Your task to perform on an android device: Set the phone to "Do not disturb". Image 0: 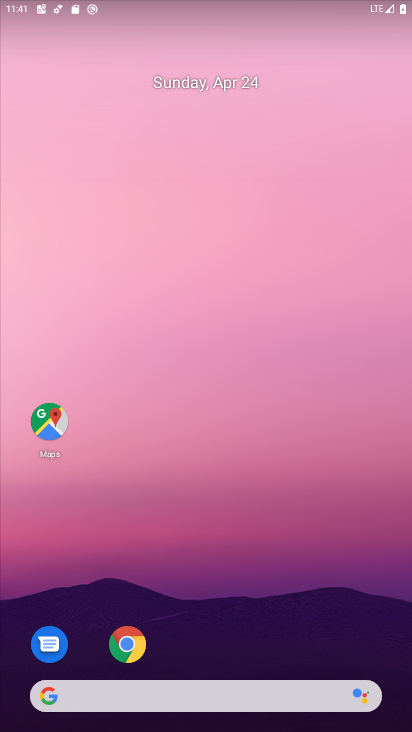
Step 0: drag from (184, 562) to (259, 1)
Your task to perform on an android device: Set the phone to "Do not disturb". Image 1: 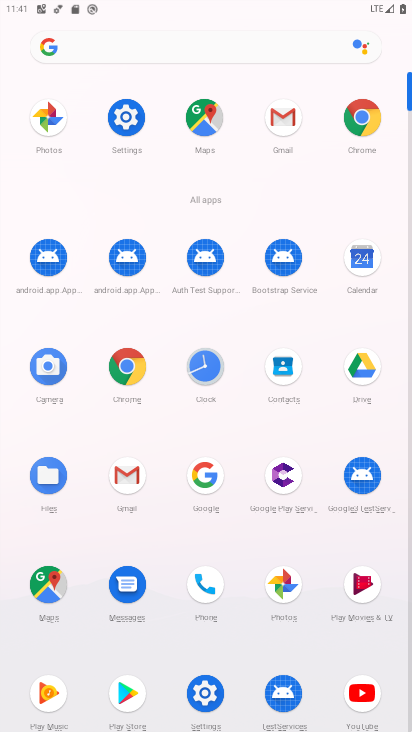
Step 1: click (129, 131)
Your task to perform on an android device: Set the phone to "Do not disturb". Image 2: 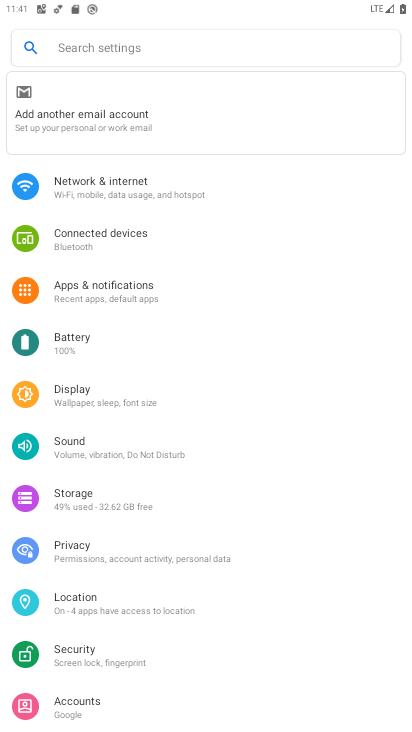
Step 2: click (110, 454)
Your task to perform on an android device: Set the phone to "Do not disturb". Image 3: 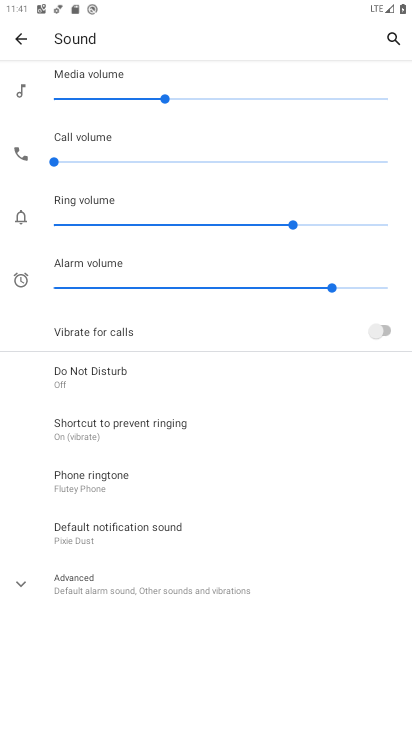
Step 3: click (92, 378)
Your task to perform on an android device: Set the phone to "Do not disturb". Image 4: 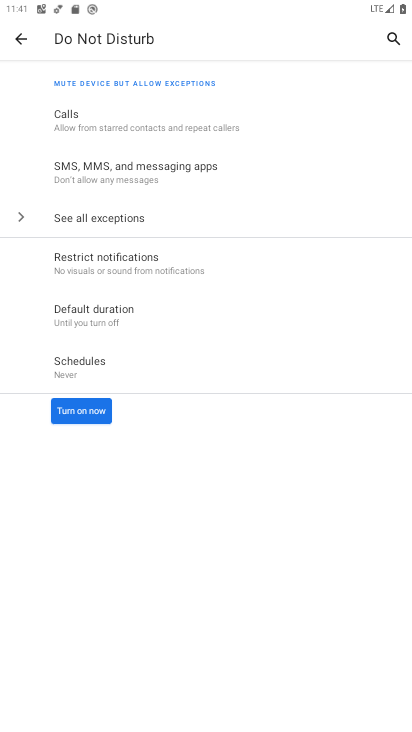
Step 4: click (76, 413)
Your task to perform on an android device: Set the phone to "Do not disturb". Image 5: 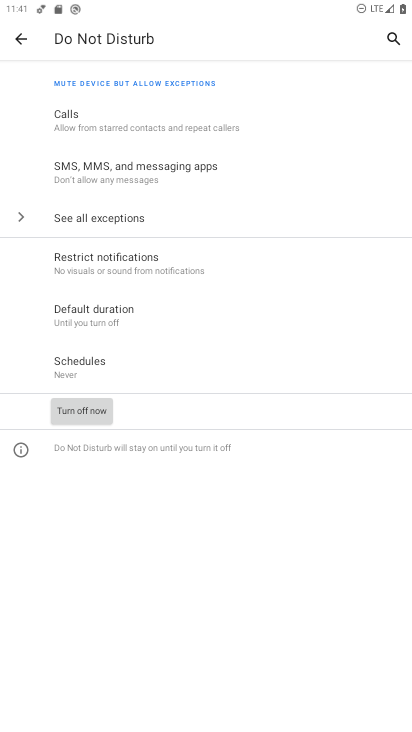
Step 5: task complete